Your task to perform on an android device: turn vacation reply on in the gmail app Image 0: 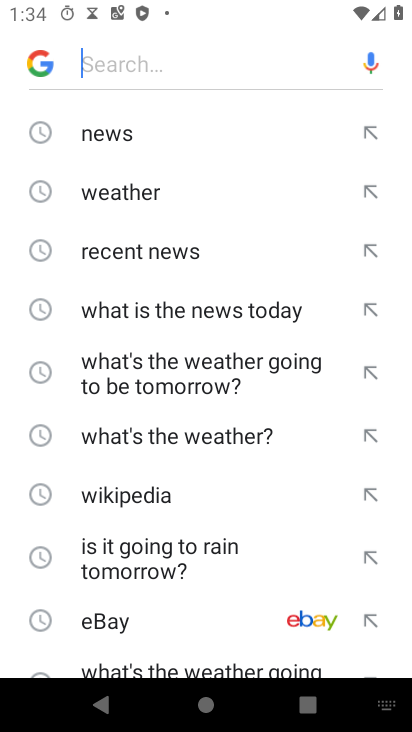
Step 0: press home button
Your task to perform on an android device: turn vacation reply on in the gmail app Image 1: 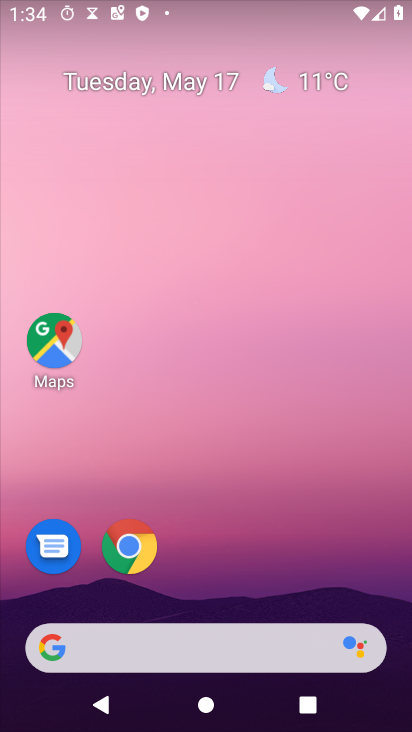
Step 1: drag from (164, 643) to (310, 71)
Your task to perform on an android device: turn vacation reply on in the gmail app Image 2: 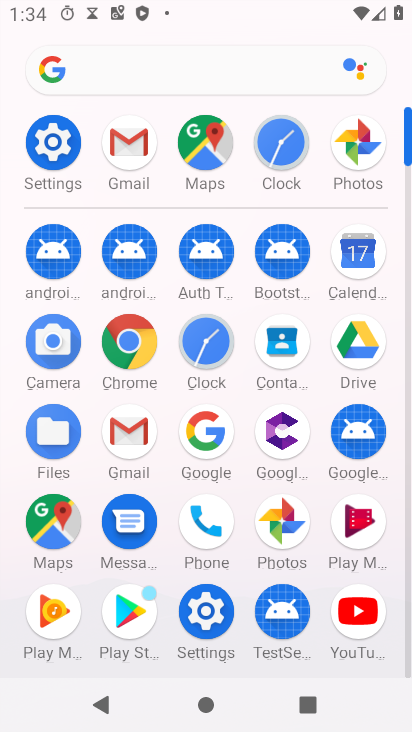
Step 2: click (133, 158)
Your task to perform on an android device: turn vacation reply on in the gmail app Image 3: 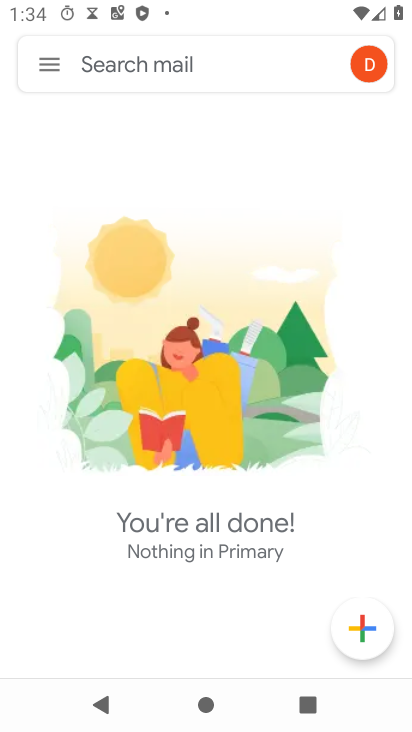
Step 3: click (52, 61)
Your task to perform on an android device: turn vacation reply on in the gmail app Image 4: 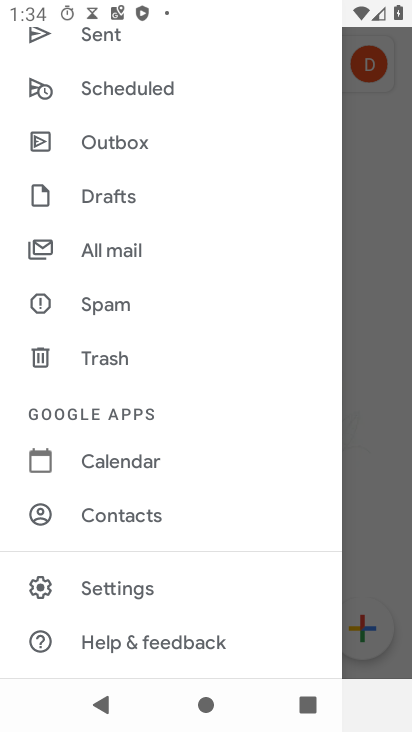
Step 4: click (113, 594)
Your task to perform on an android device: turn vacation reply on in the gmail app Image 5: 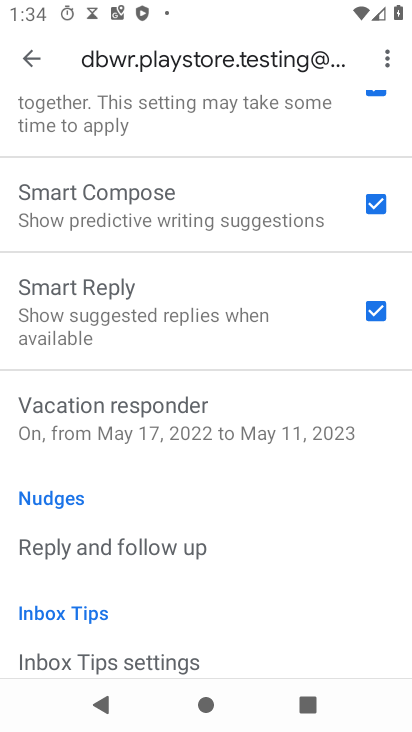
Step 5: click (150, 427)
Your task to perform on an android device: turn vacation reply on in the gmail app Image 6: 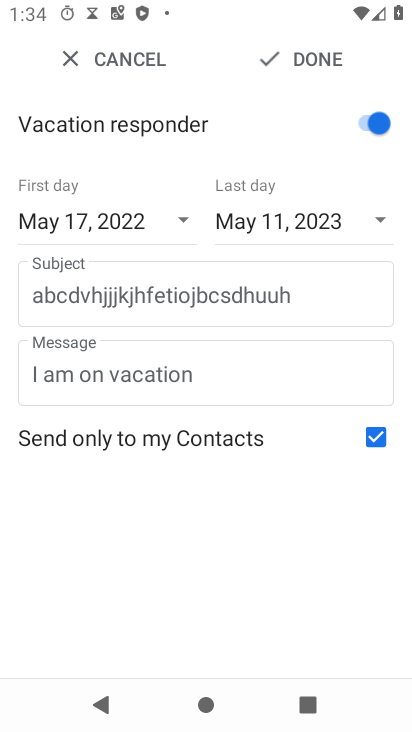
Step 6: task complete